Your task to perform on an android device: open chrome and create a bookmark for the current page Image 0: 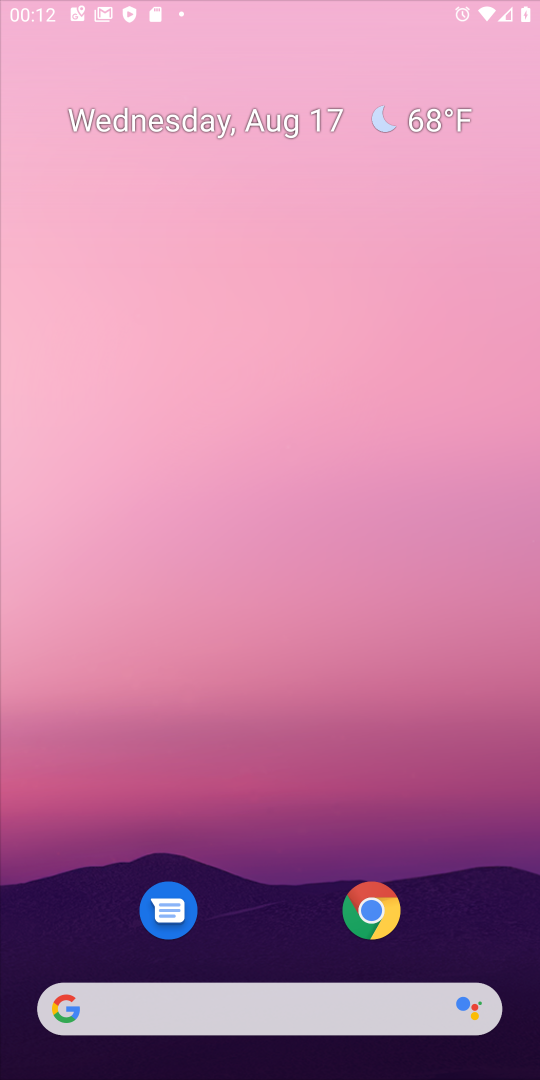
Step 0: press home button
Your task to perform on an android device: open chrome and create a bookmark for the current page Image 1: 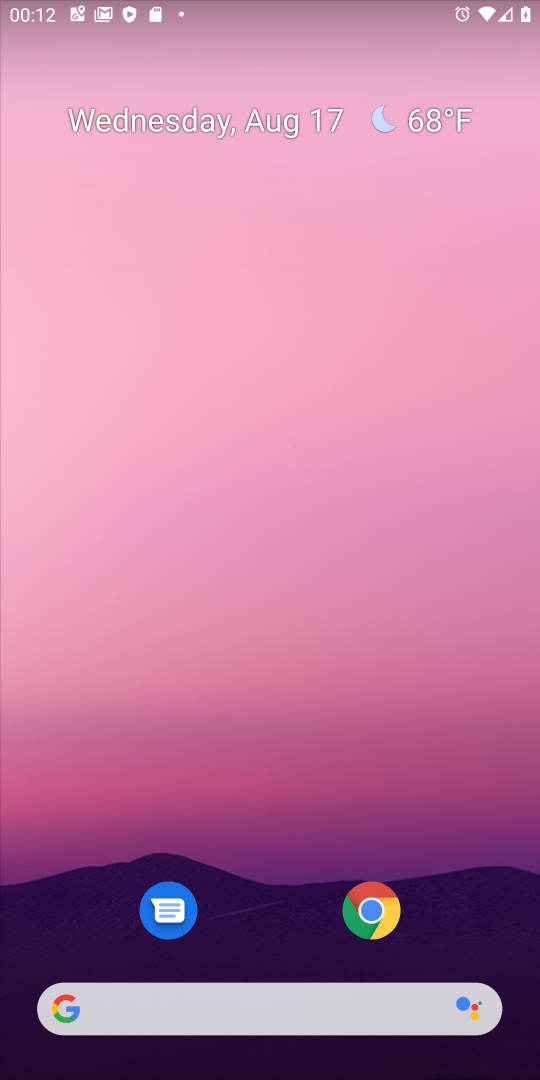
Step 1: press home button
Your task to perform on an android device: open chrome and create a bookmark for the current page Image 2: 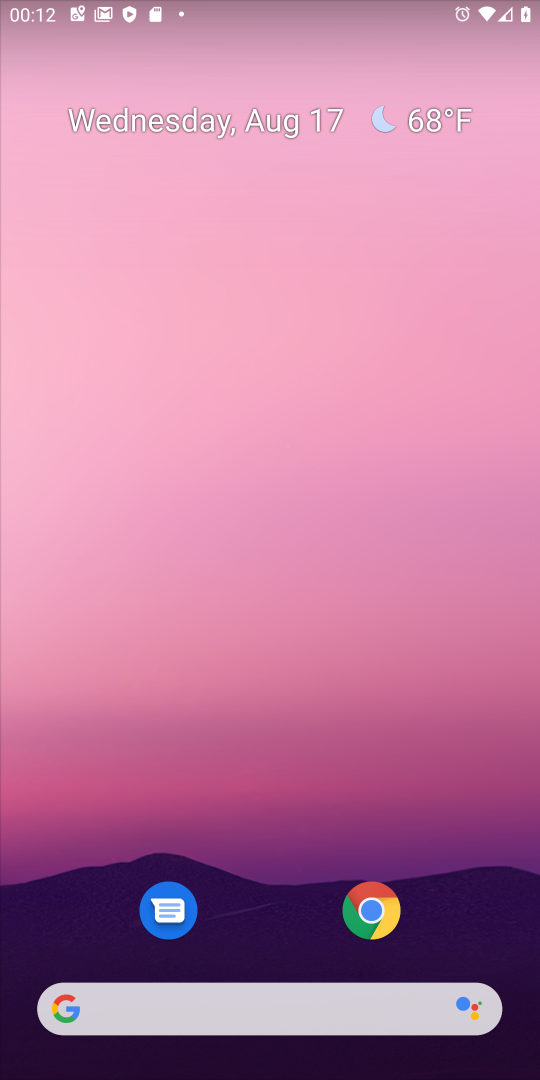
Step 2: drag from (291, 519) to (366, 23)
Your task to perform on an android device: open chrome and create a bookmark for the current page Image 3: 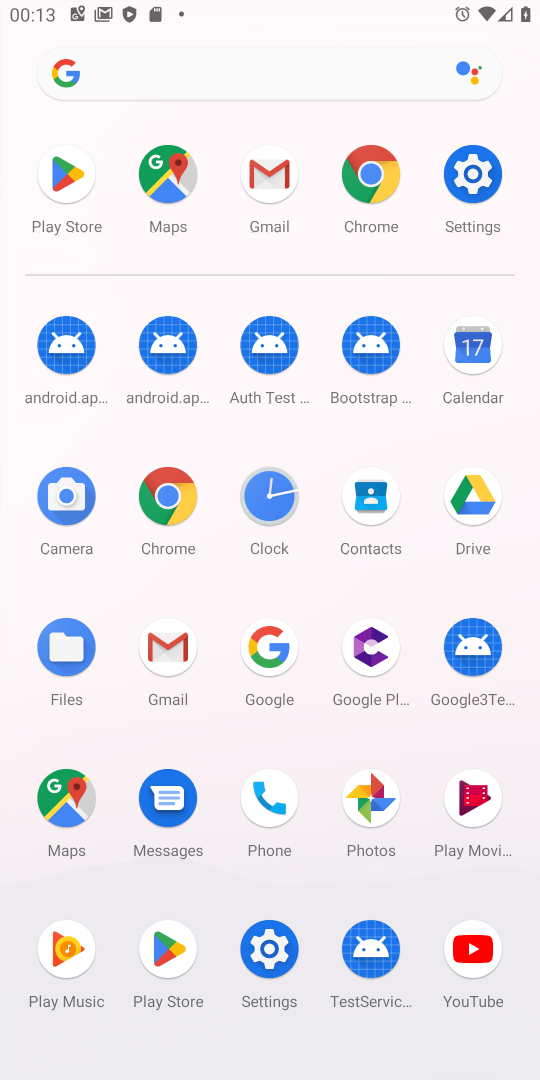
Step 3: click (163, 506)
Your task to perform on an android device: open chrome and create a bookmark for the current page Image 4: 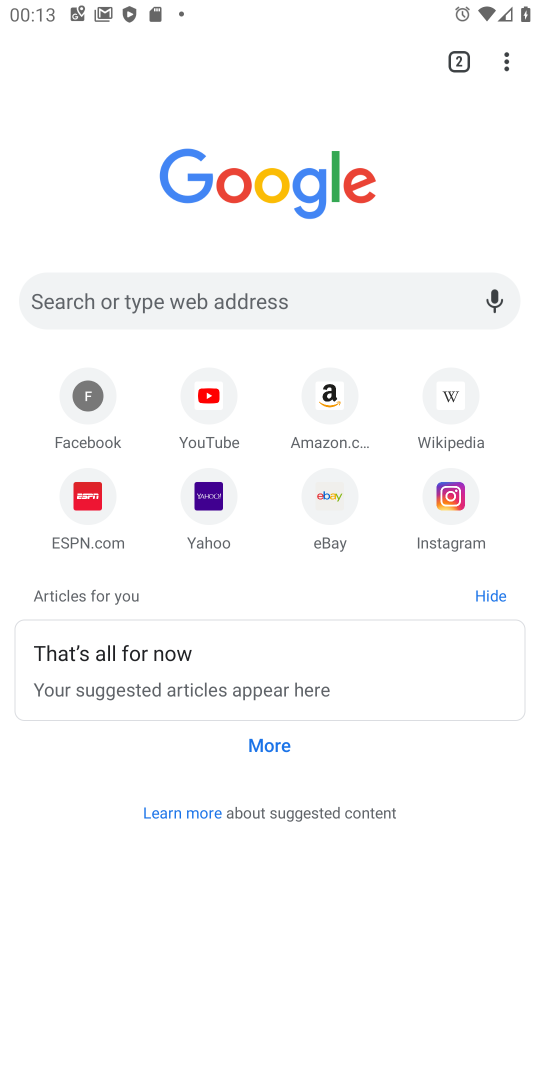
Step 4: task complete